Your task to perform on an android device: change keyboard looks Image 0: 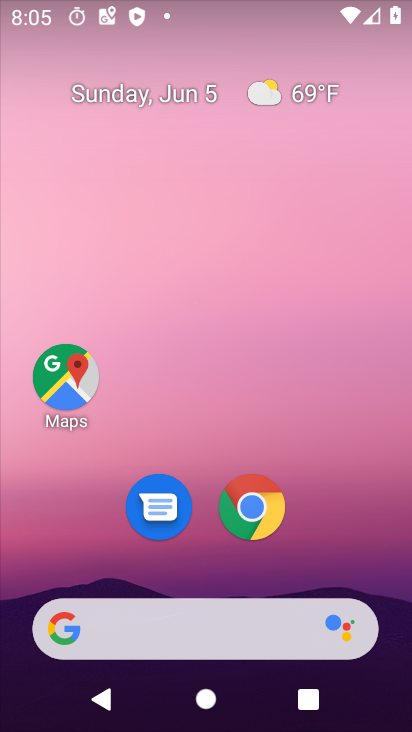
Step 0: drag from (346, 577) to (227, 39)
Your task to perform on an android device: change keyboard looks Image 1: 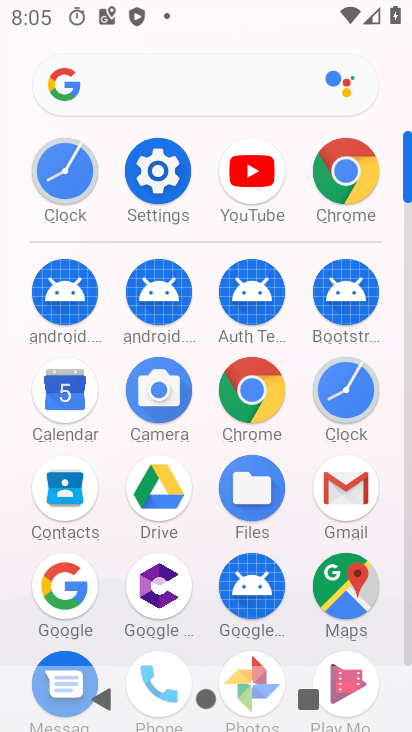
Step 1: click (153, 174)
Your task to perform on an android device: change keyboard looks Image 2: 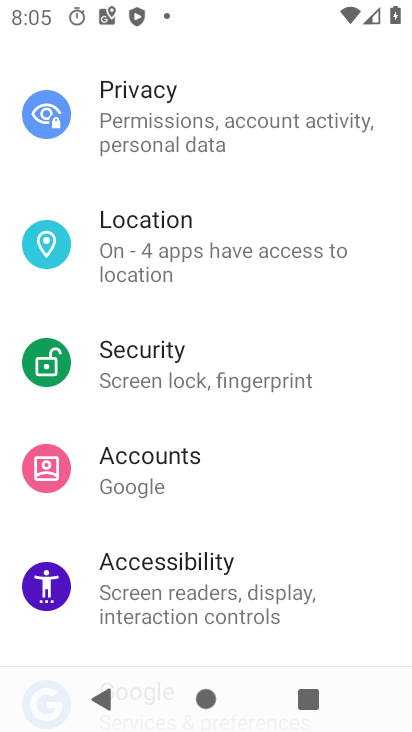
Step 2: drag from (289, 593) to (309, 106)
Your task to perform on an android device: change keyboard looks Image 3: 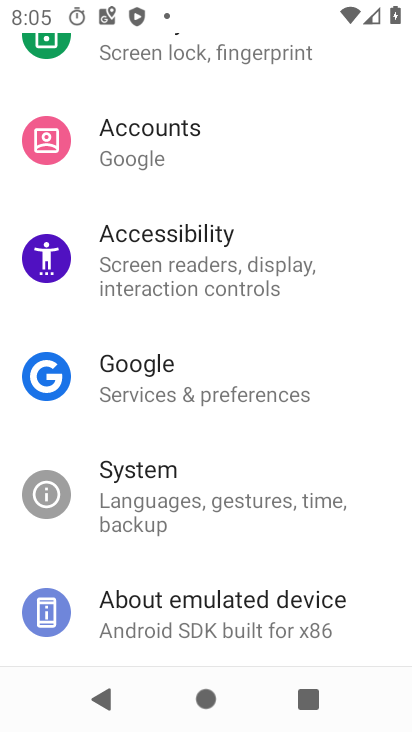
Step 3: drag from (278, 560) to (297, 160)
Your task to perform on an android device: change keyboard looks Image 4: 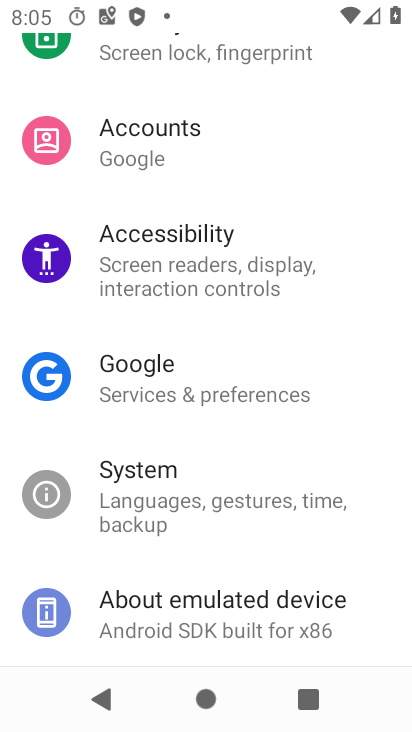
Step 4: click (172, 497)
Your task to perform on an android device: change keyboard looks Image 5: 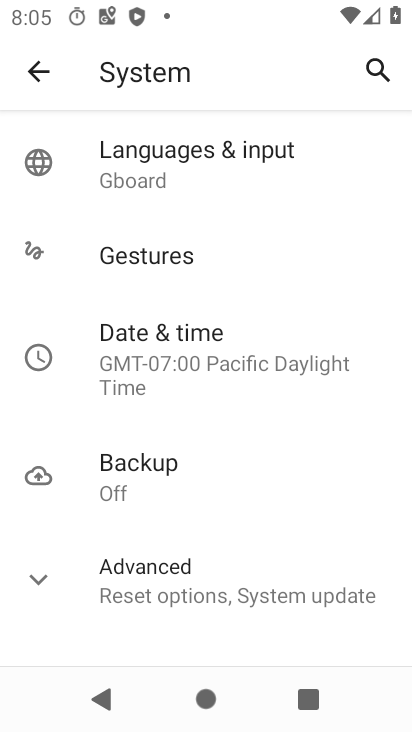
Step 5: click (202, 184)
Your task to perform on an android device: change keyboard looks Image 6: 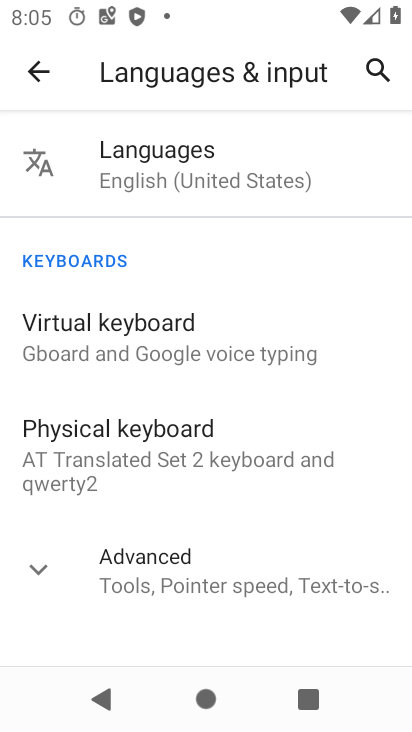
Step 6: click (197, 366)
Your task to perform on an android device: change keyboard looks Image 7: 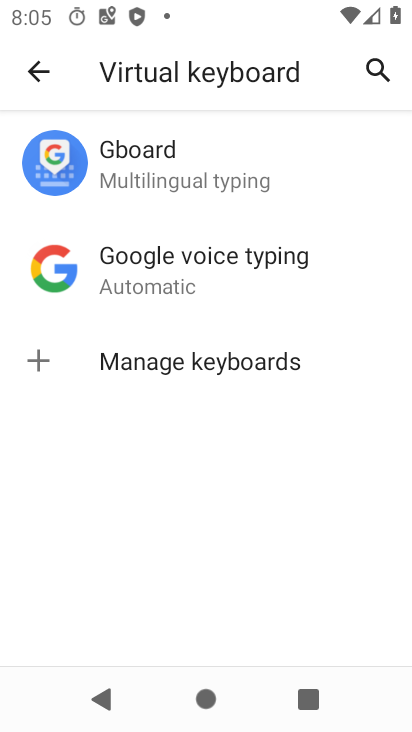
Step 7: click (222, 173)
Your task to perform on an android device: change keyboard looks Image 8: 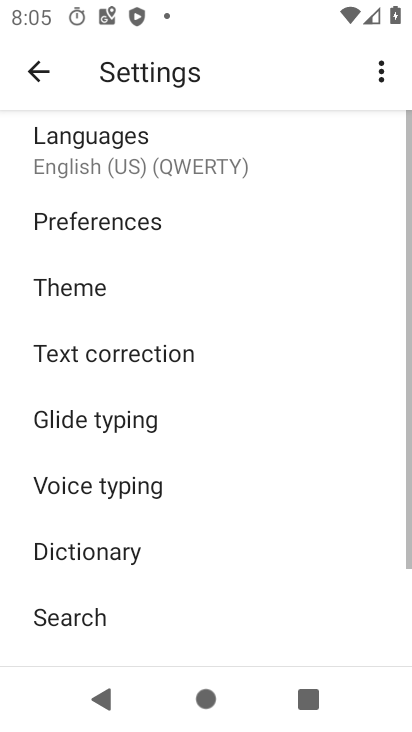
Step 8: click (124, 282)
Your task to perform on an android device: change keyboard looks Image 9: 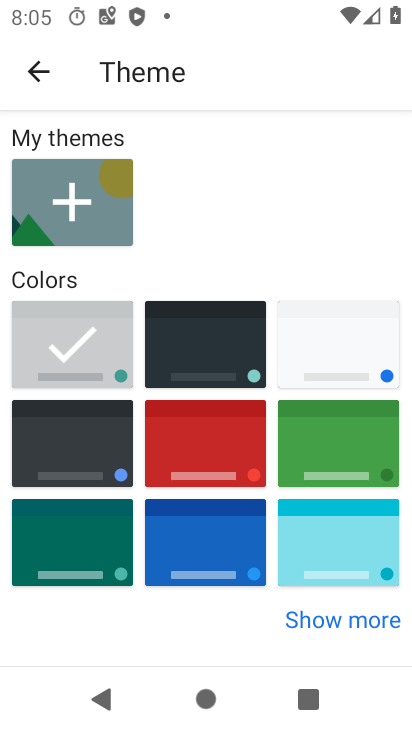
Step 9: click (211, 344)
Your task to perform on an android device: change keyboard looks Image 10: 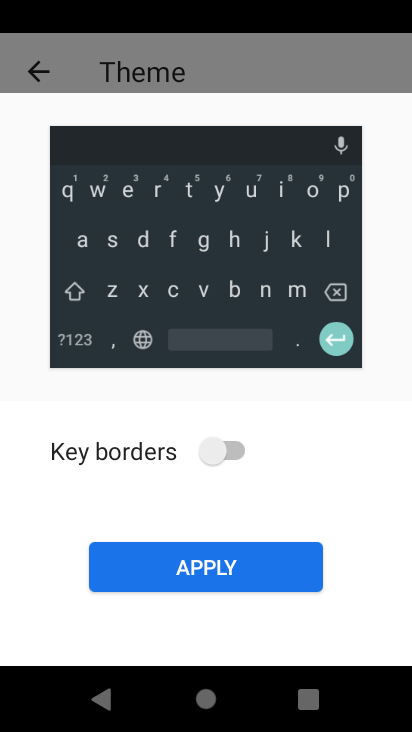
Step 10: click (203, 564)
Your task to perform on an android device: change keyboard looks Image 11: 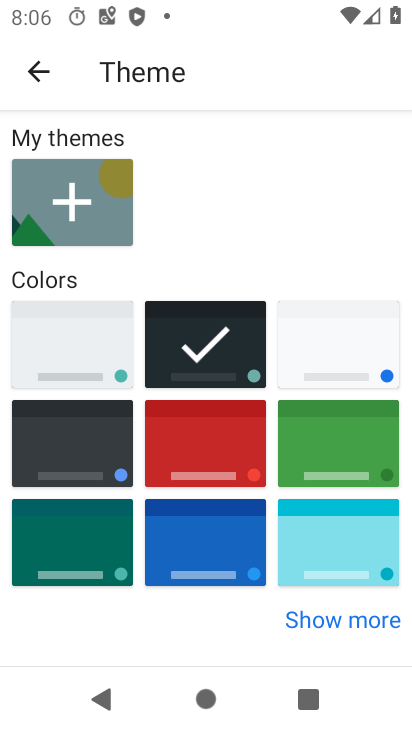
Step 11: task complete